Your task to perform on an android device: empty trash in google photos Image 0: 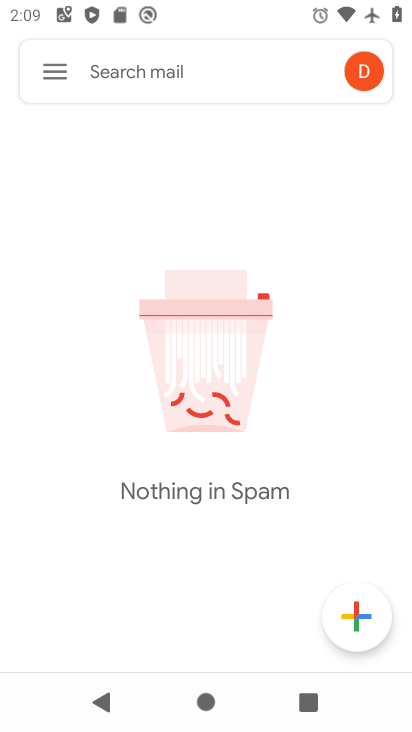
Step 0: press home button
Your task to perform on an android device: empty trash in google photos Image 1: 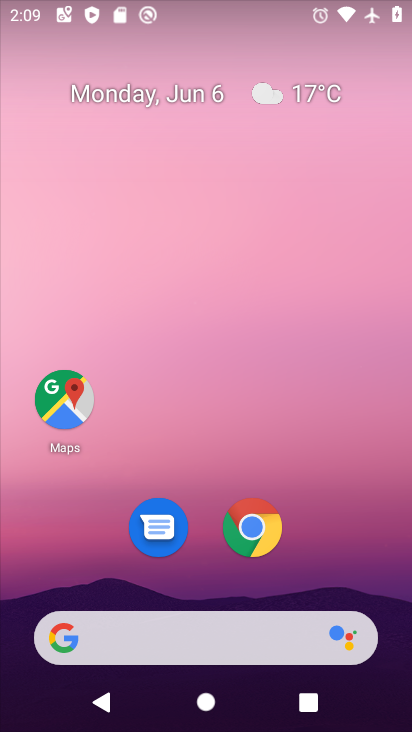
Step 1: drag from (346, 555) to (153, 7)
Your task to perform on an android device: empty trash in google photos Image 2: 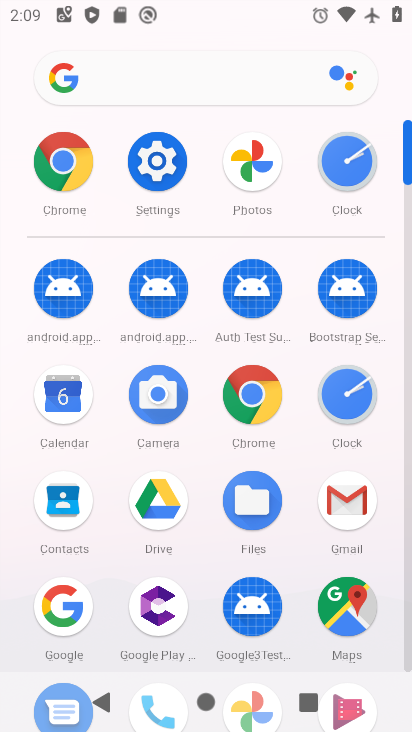
Step 2: click (256, 165)
Your task to perform on an android device: empty trash in google photos Image 3: 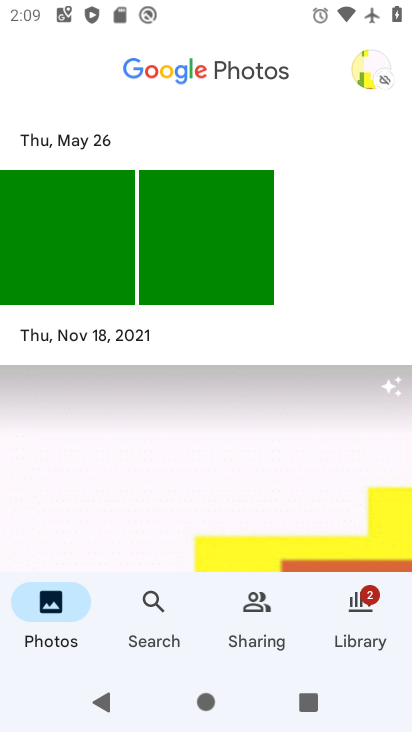
Step 3: click (349, 598)
Your task to perform on an android device: empty trash in google photos Image 4: 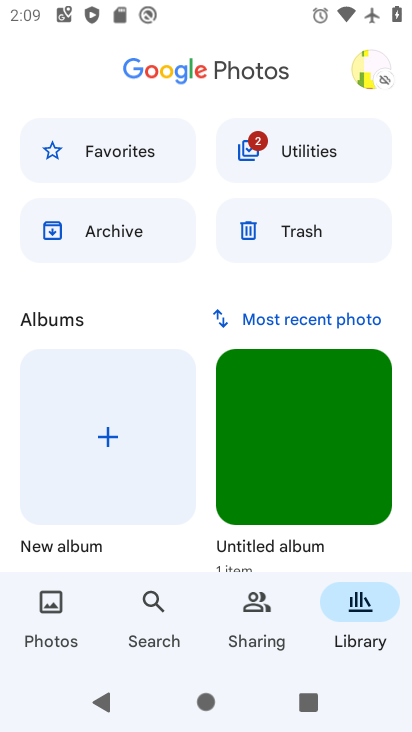
Step 4: click (296, 227)
Your task to perform on an android device: empty trash in google photos Image 5: 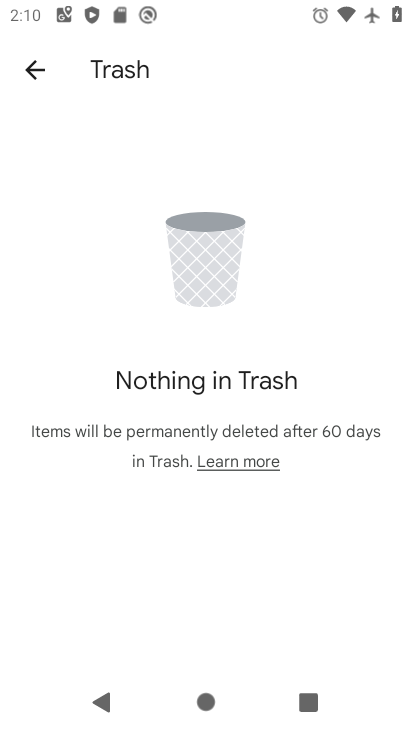
Step 5: task complete